Your task to perform on an android device: Turn on the flashlight Image 0: 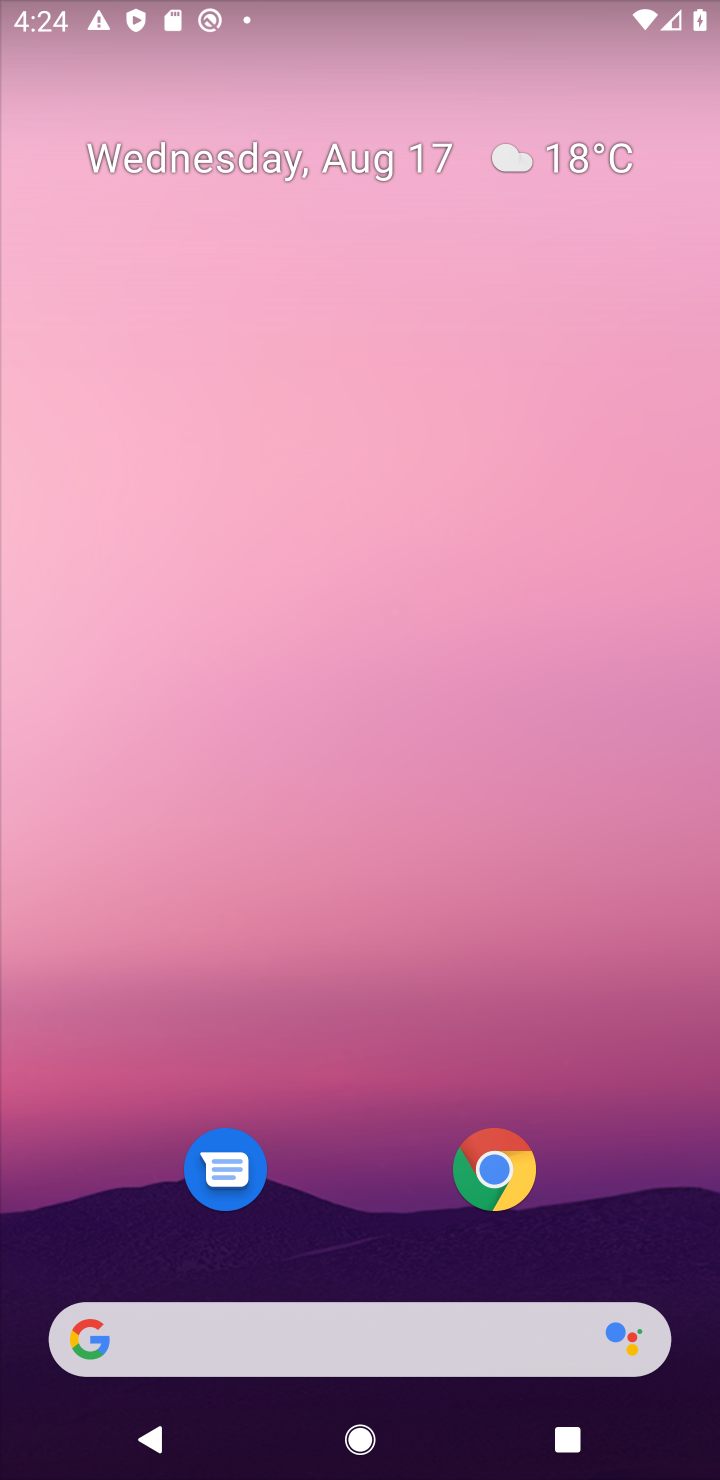
Step 0: drag from (234, 657) to (369, 226)
Your task to perform on an android device: Turn on the flashlight Image 1: 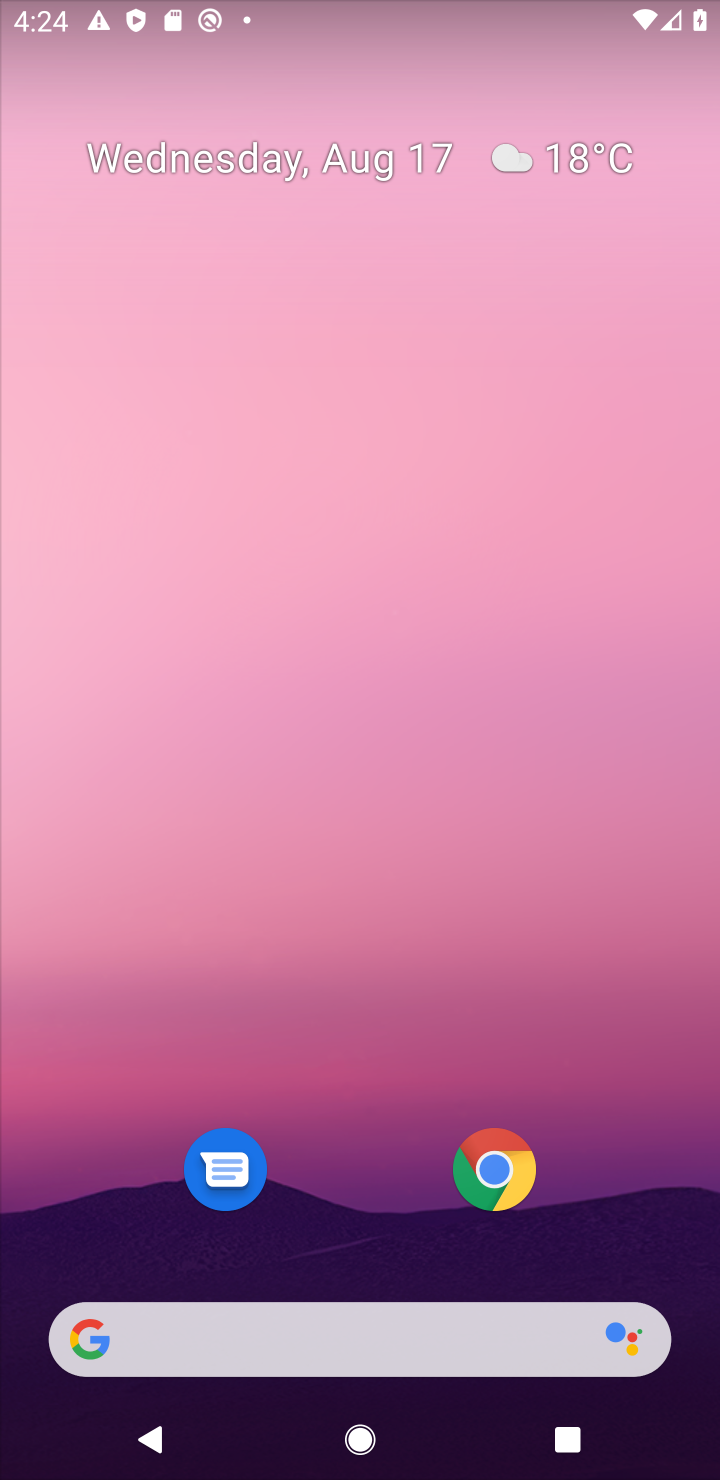
Step 1: drag from (383, 1114) to (537, 300)
Your task to perform on an android device: Turn on the flashlight Image 2: 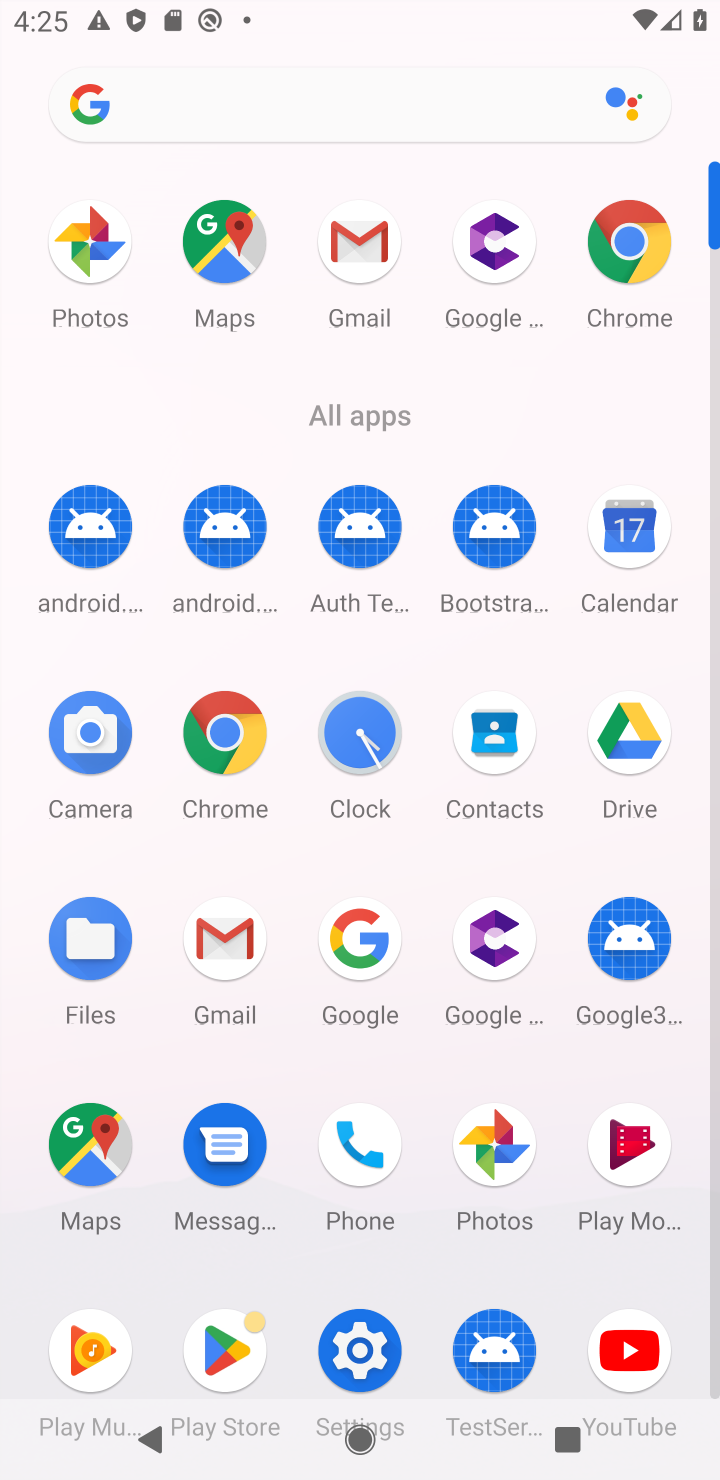
Step 2: click (351, 1374)
Your task to perform on an android device: Turn on the flashlight Image 3: 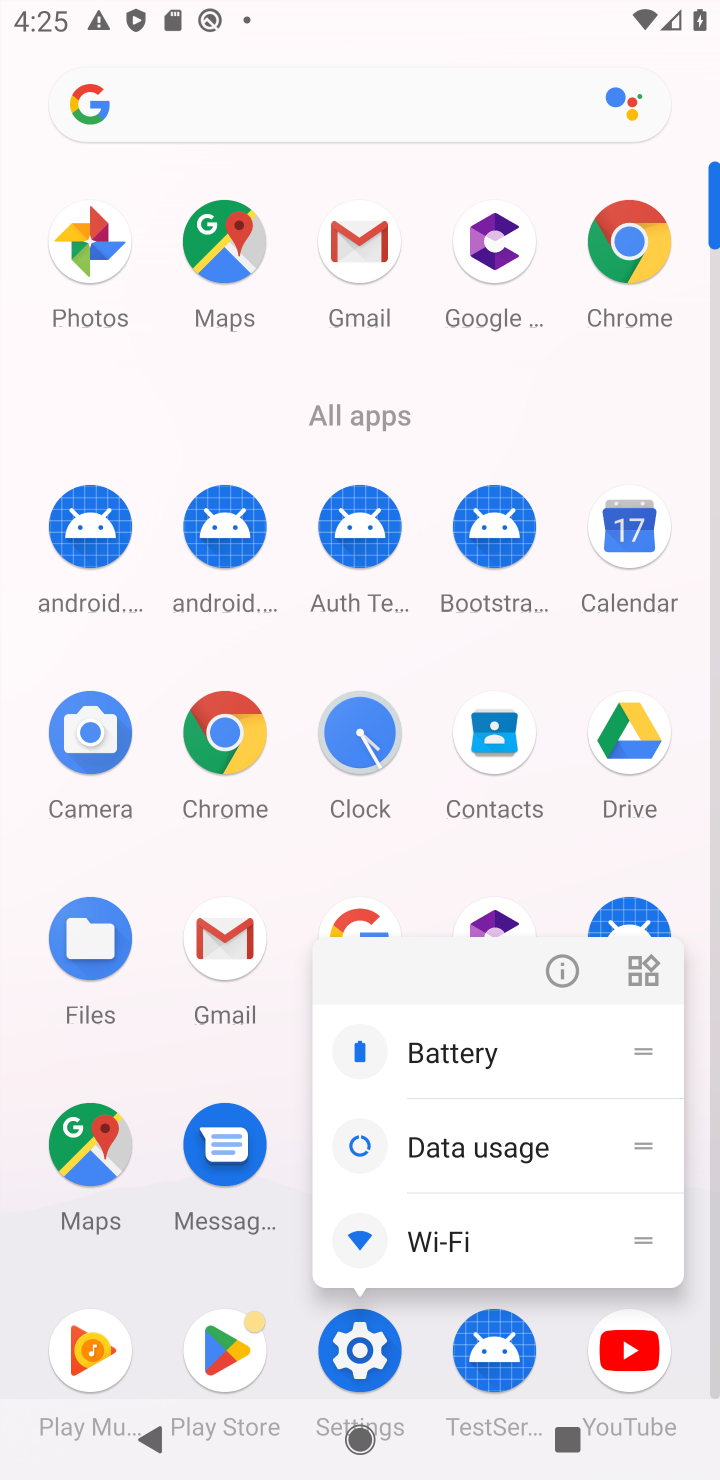
Step 3: click (347, 1370)
Your task to perform on an android device: Turn on the flashlight Image 4: 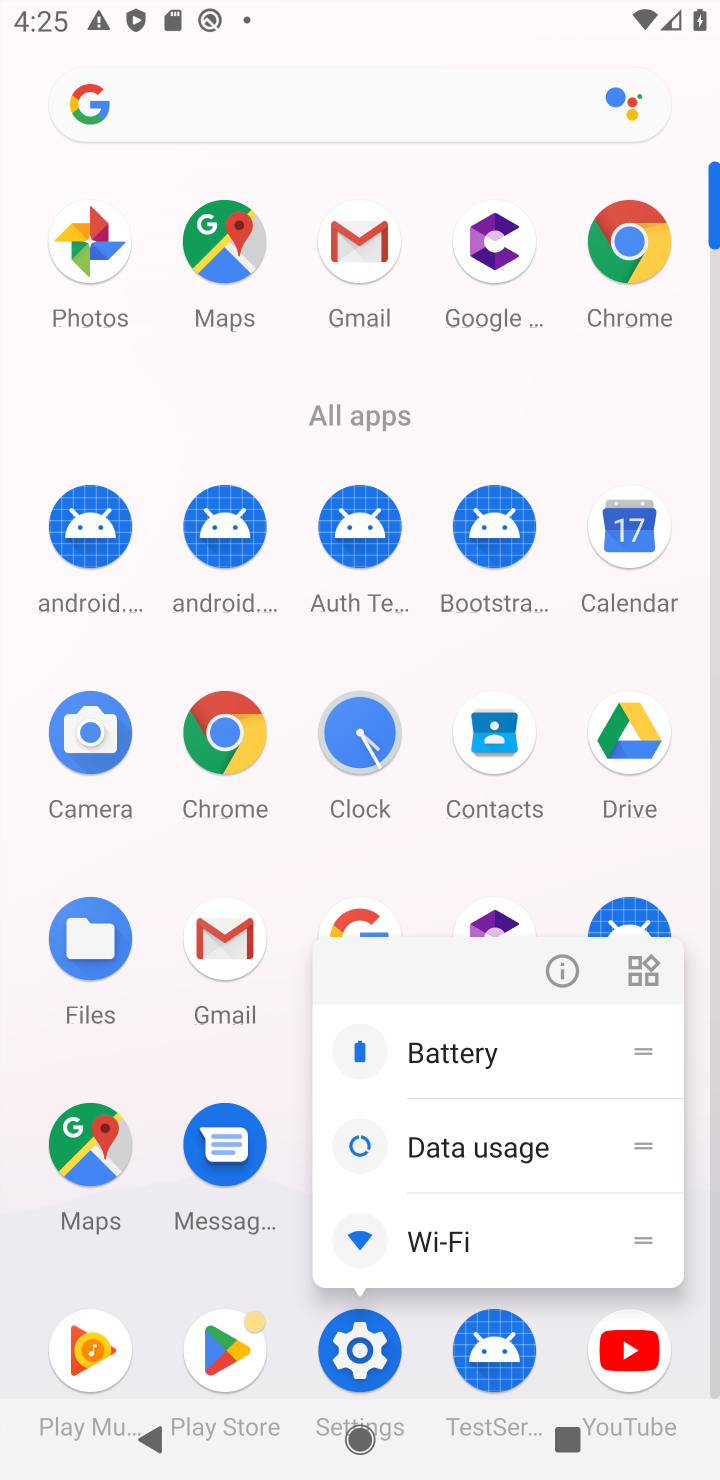
Step 4: click (344, 1365)
Your task to perform on an android device: Turn on the flashlight Image 5: 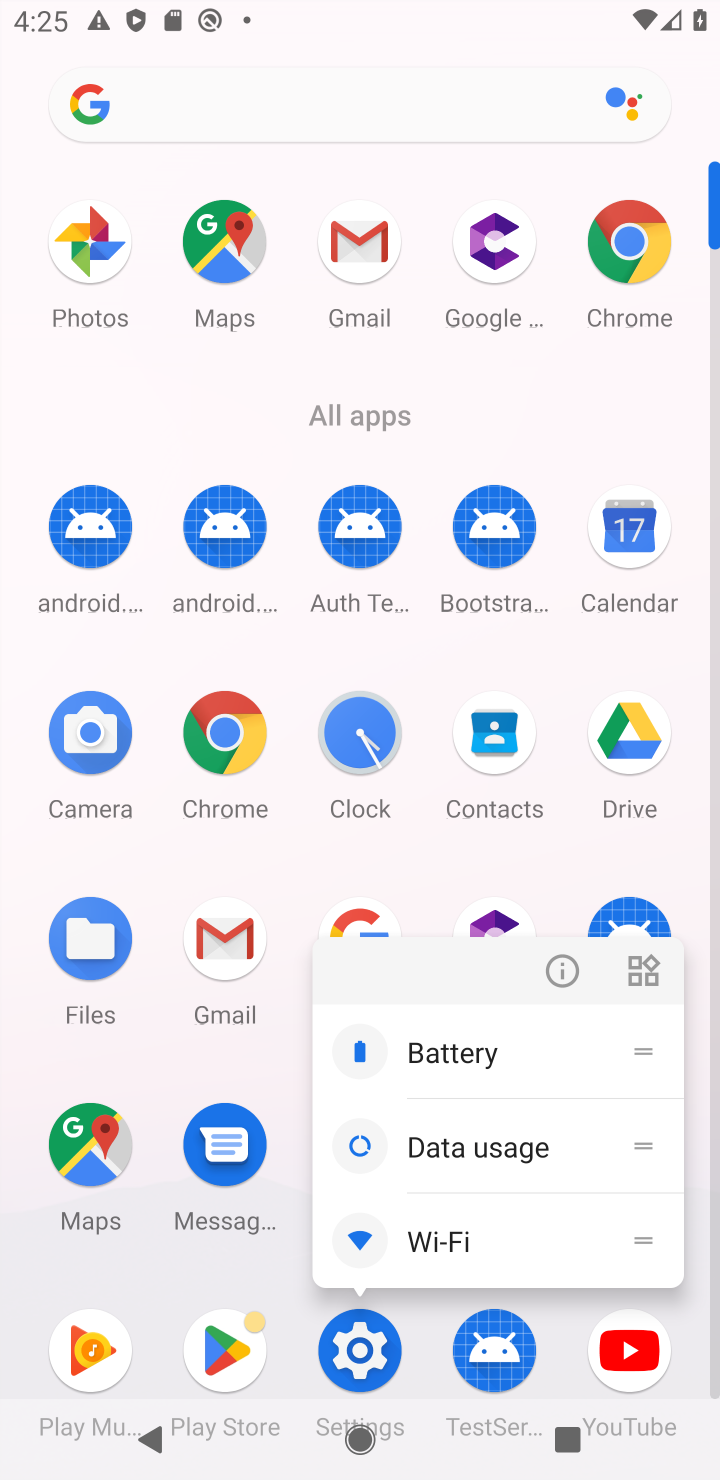
Step 5: click (344, 1364)
Your task to perform on an android device: Turn on the flashlight Image 6: 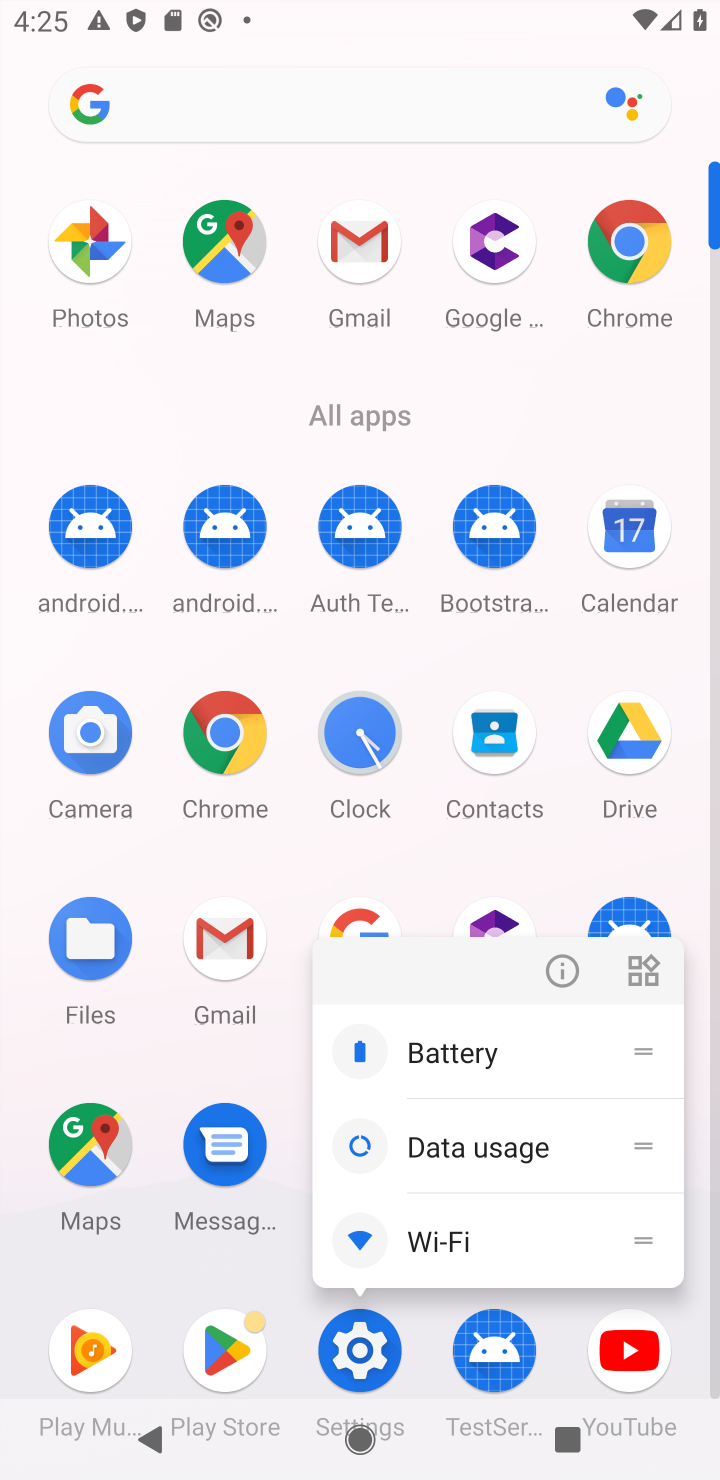
Step 6: click (344, 1362)
Your task to perform on an android device: Turn on the flashlight Image 7: 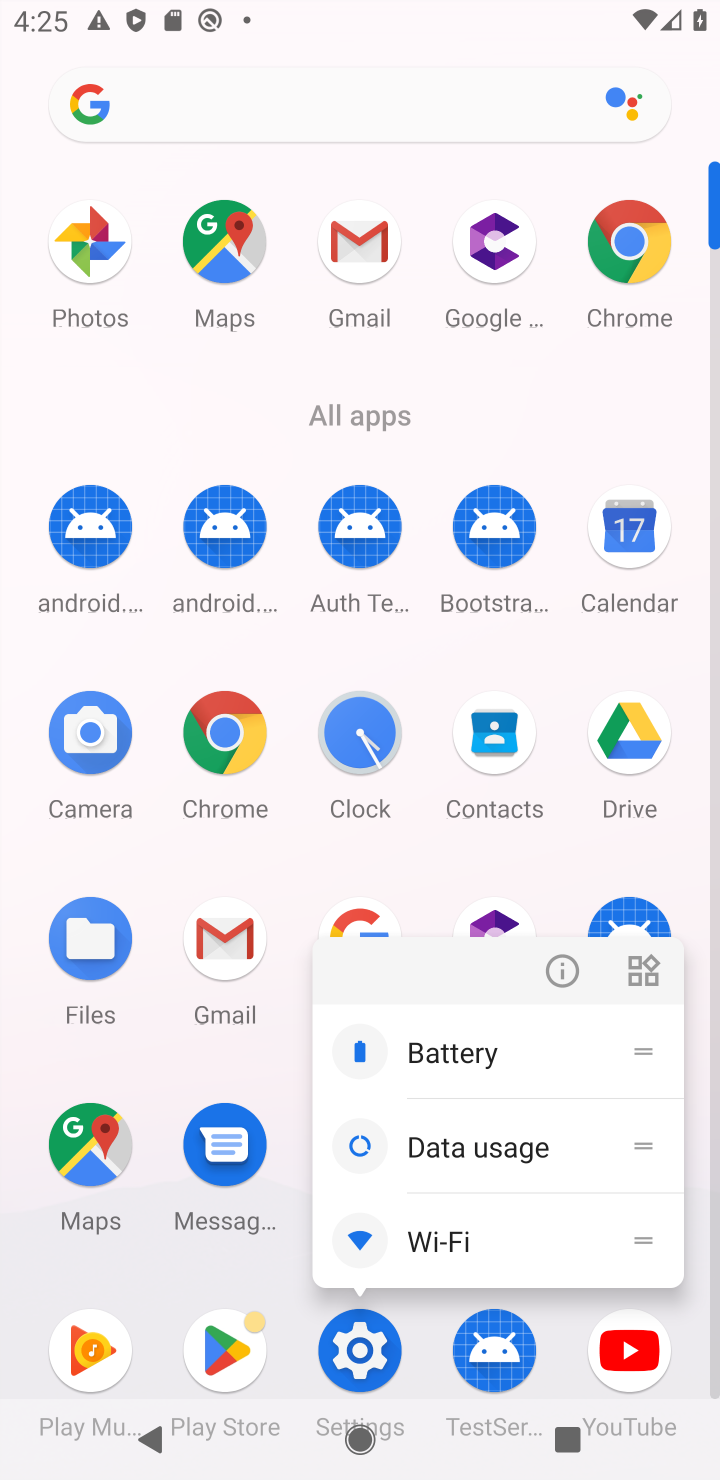
Step 7: click (356, 1346)
Your task to perform on an android device: Turn on the flashlight Image 8: 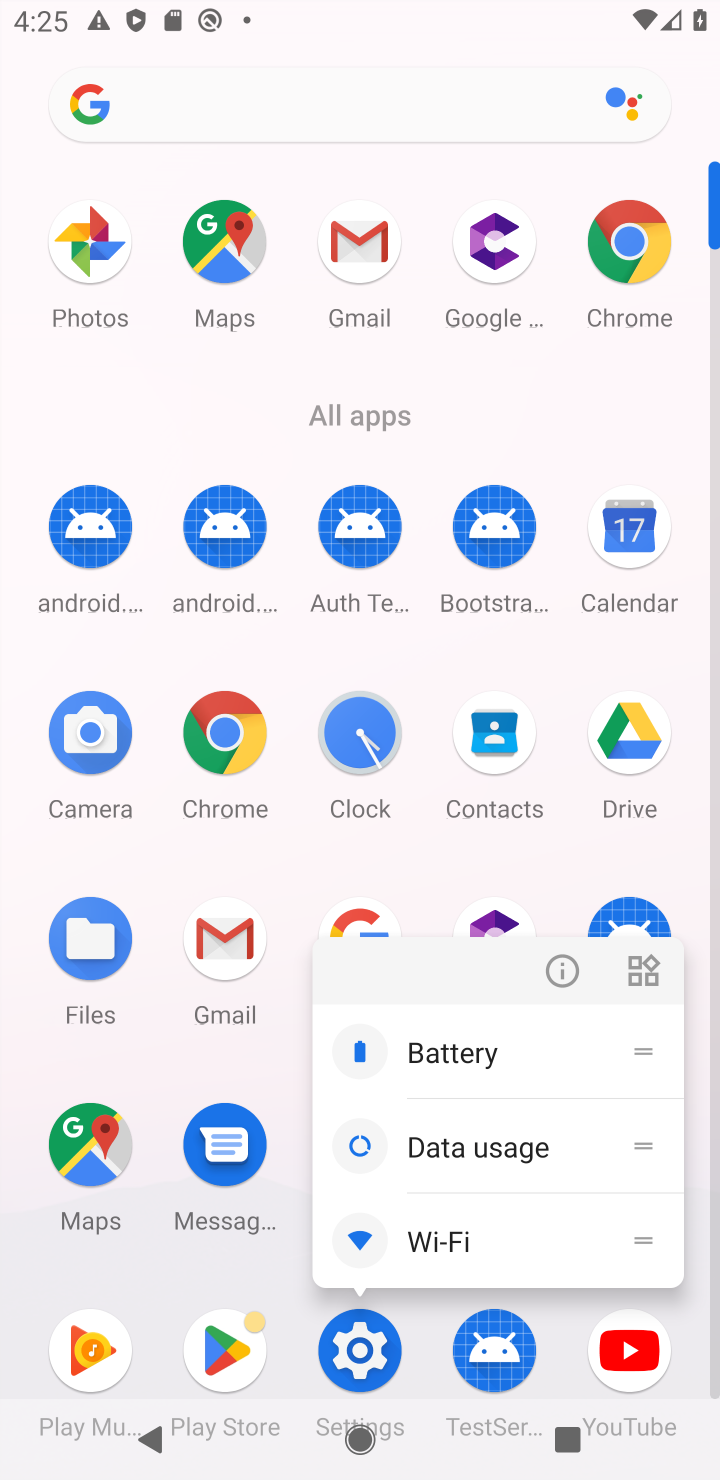
Step 8: click (358, 1346)
Your task to perform on an android device: Turn on the flashlight Image 9: 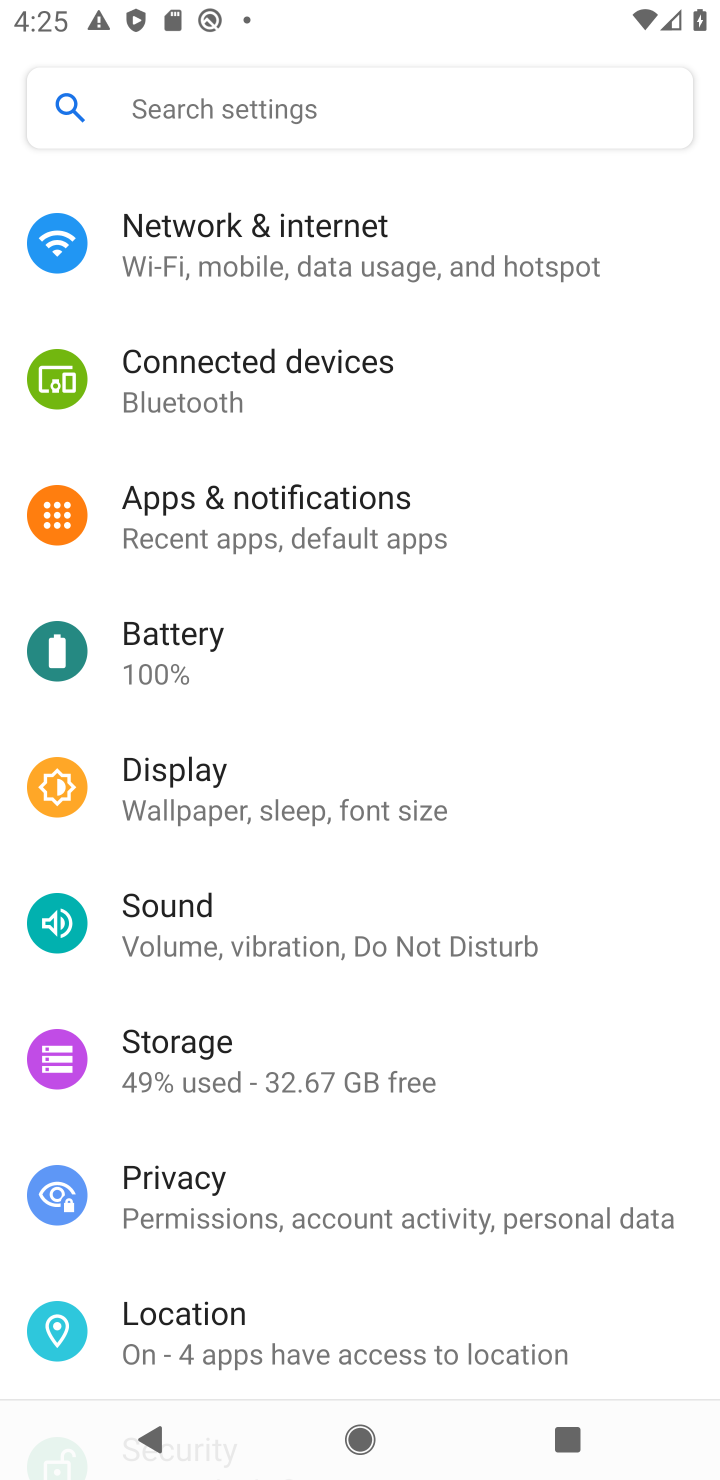
Step 9: click (358, 1344)
Your task to perform on an android device: Turn on the flashlight Image 10: 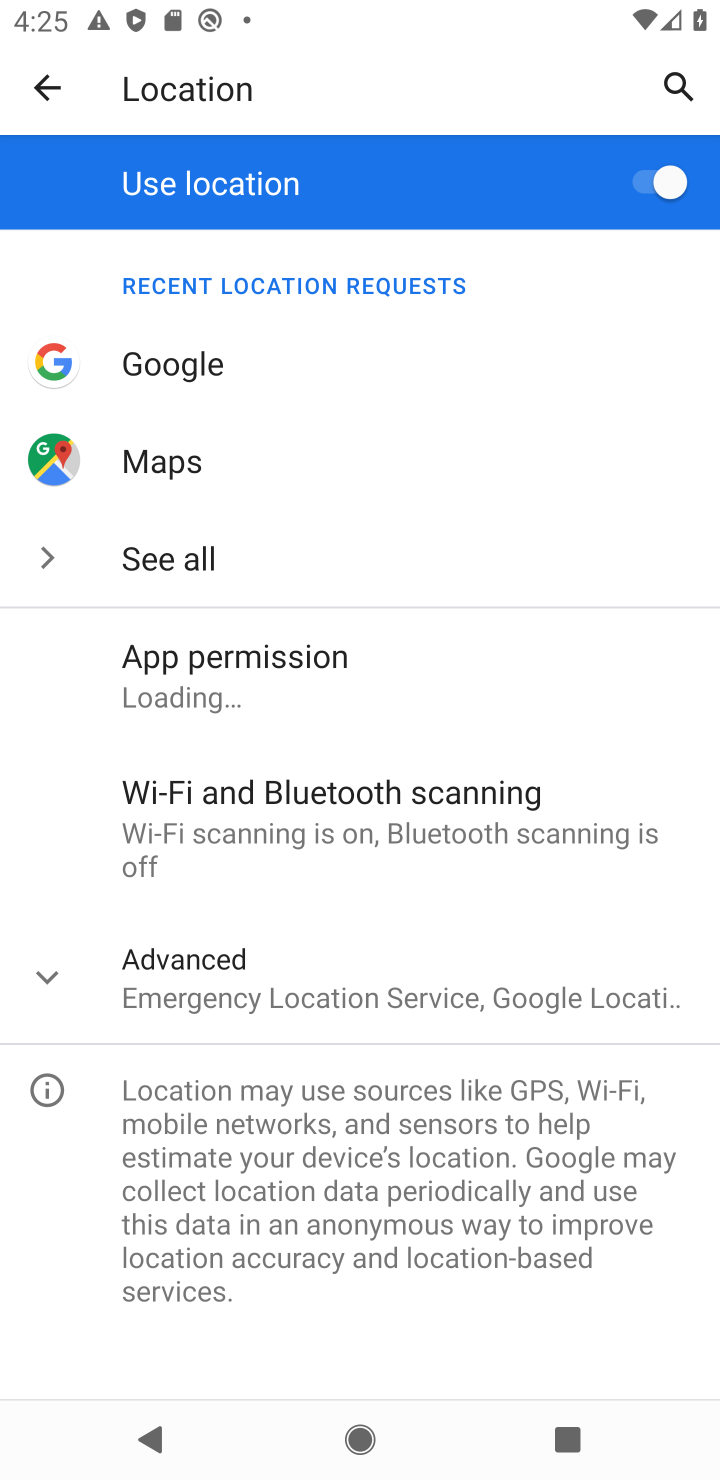
Step 10: click (358, 1344)
Your task to perform on an android device: Turn on the flashlight Image 11: 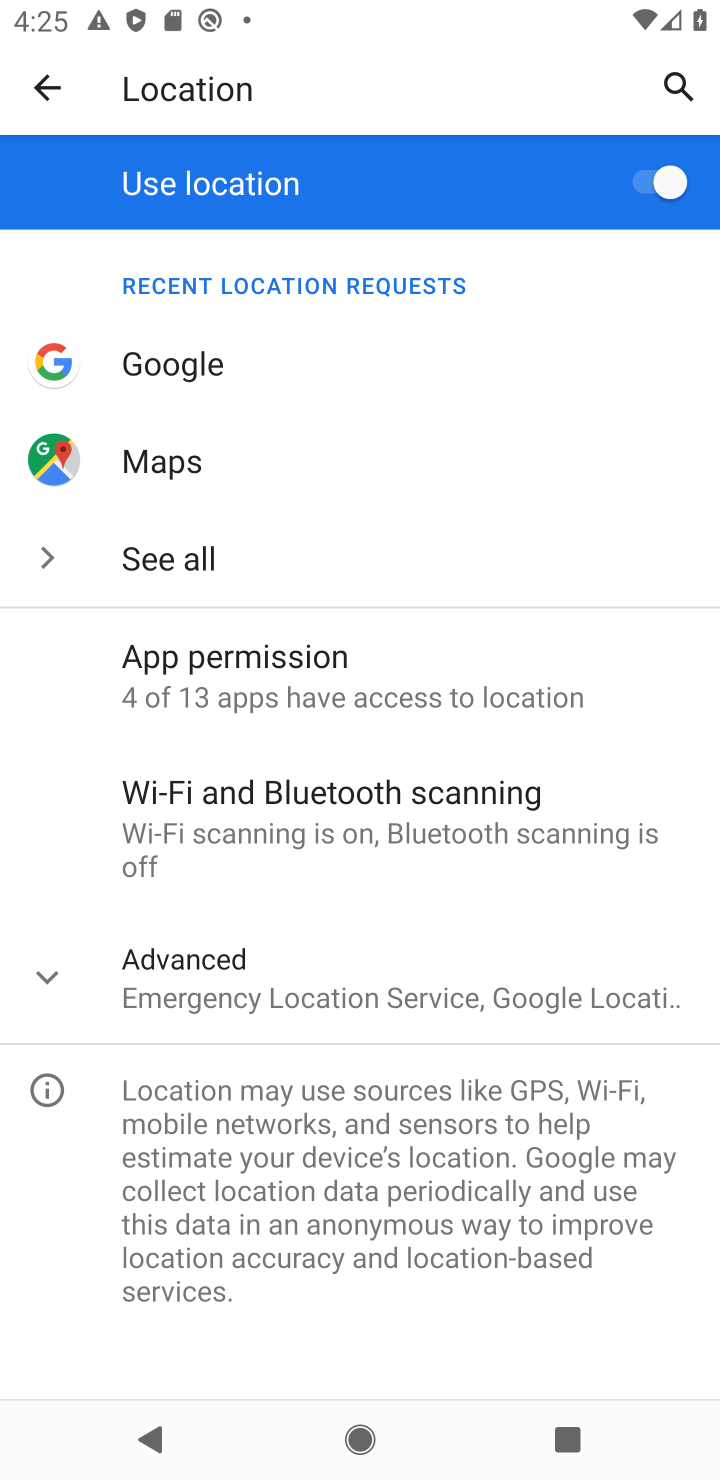
Step 11: task complete